Your task to perform on an android device: turn on improve location accuracy Image 0: 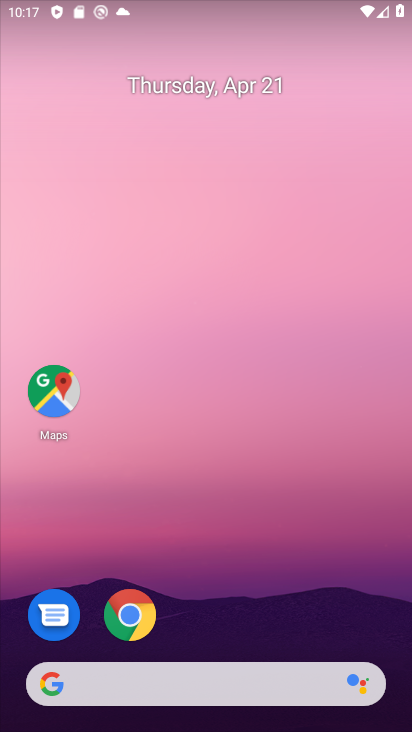
Step 0: drag from (218, 631) to (241, 71)
Your task to perform on an android device: turn on improve location accuracy Image 1: 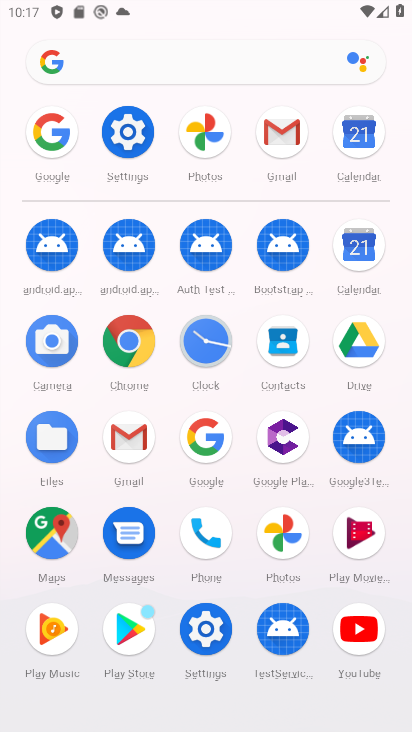
Step 1: click (203, 626)
Your task to perform on an android device: turn on improve location accuracy Image 2: 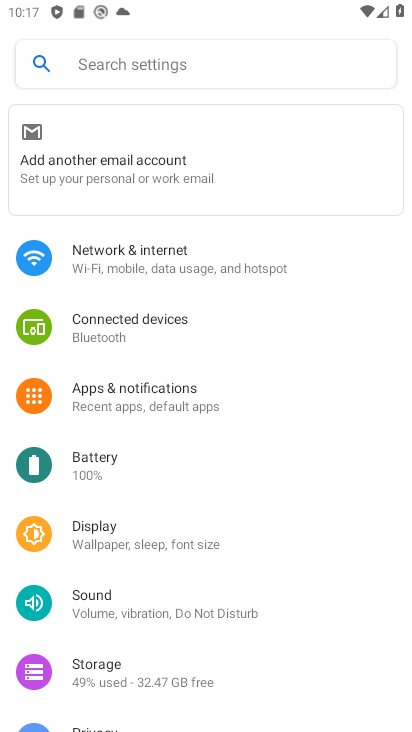
Step 2: drag from (187, 688) to (204, 289)
Your task to perform on an android device: turn on improve location accuracy Image 3: 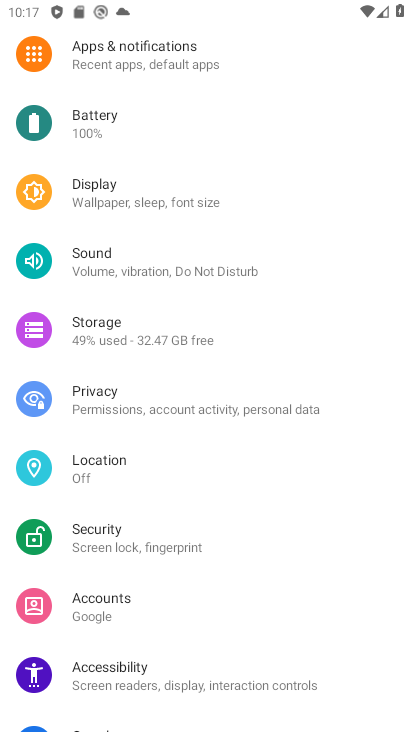
Step 3: click (117, 471)
Your task to perform on an android device: turn on improve location accuracy Image 4: 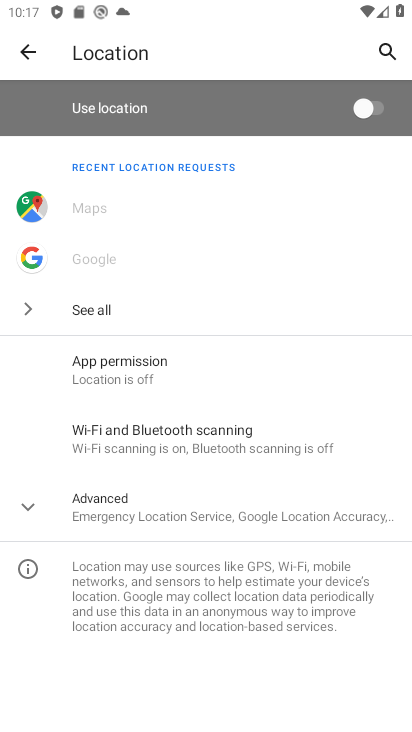
Step 4: click (27, 503)
Your task to perform on an android device: turn on improve location accuracy Image 5: 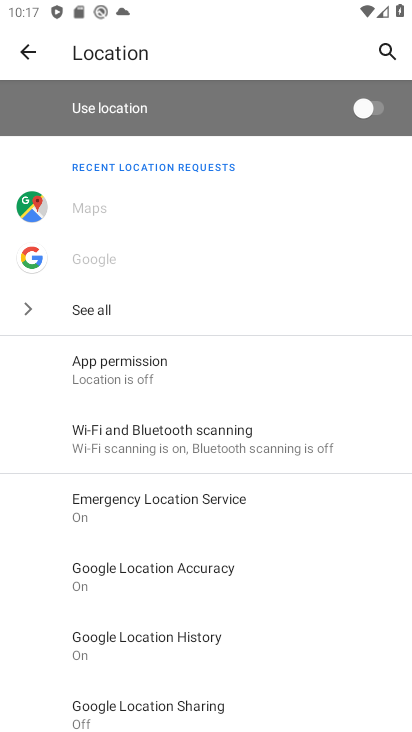
Step 5: click (142, 580)
Your task to perform on an android device: turn on improve location accuracy Image 6: 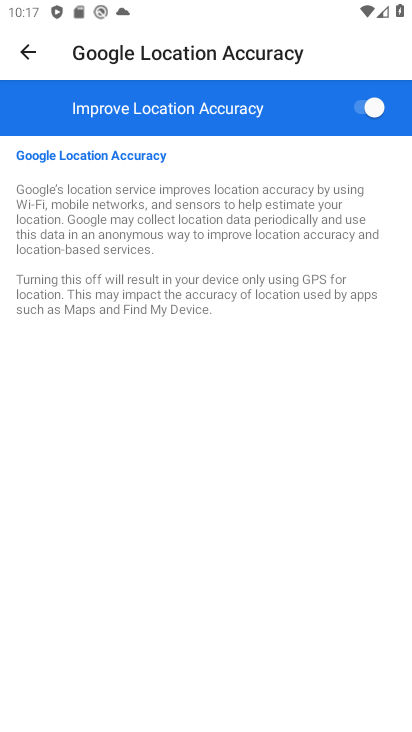
Step 6: task complete